Your task to perform on an android device: install app "Google Chat" Image 0: 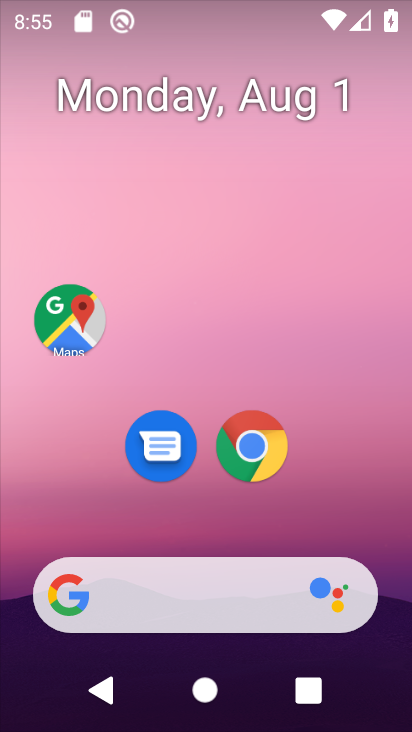
Step 0: drag from (212, 519) to (213, 88)
Your task to perform on an android device: install app "Google Chat" Image 1: 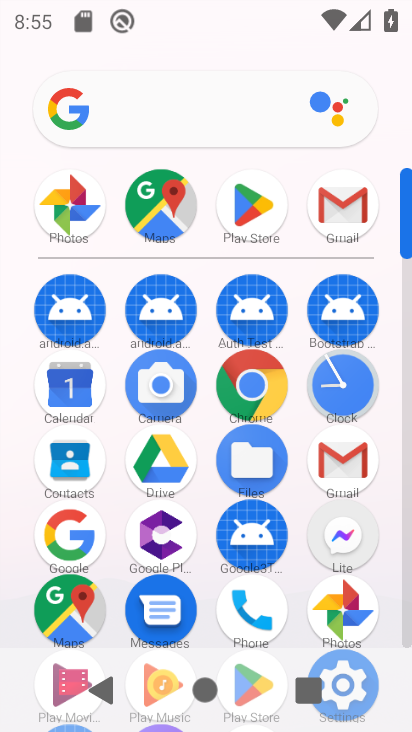
Step 1: click (252, 200)
Your task to perform on an android device: install app "Google Chat" Image 2: 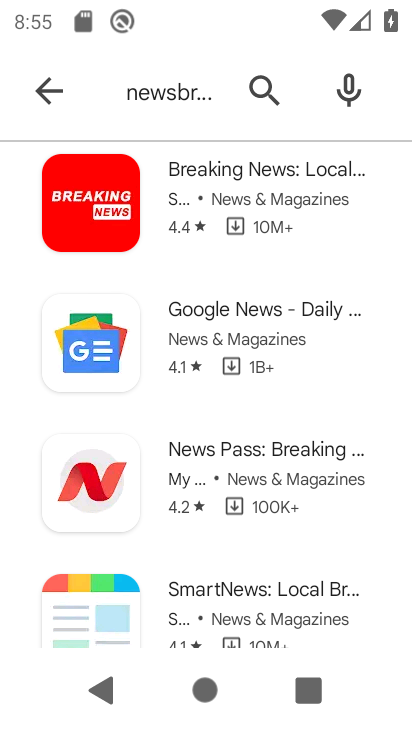
Step 2: click (267, 94)
Your task to perform on an android device: install app "Google Chat" Image 3: 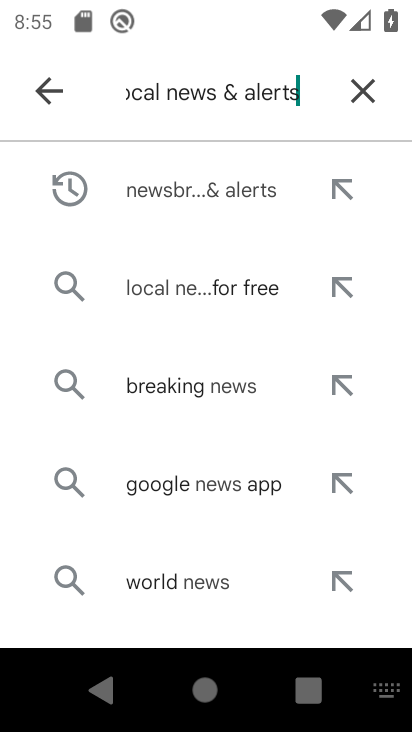
Step 3: click (354, 78)
Your task to perform on an android device: install app "Google Chat" Image 4: 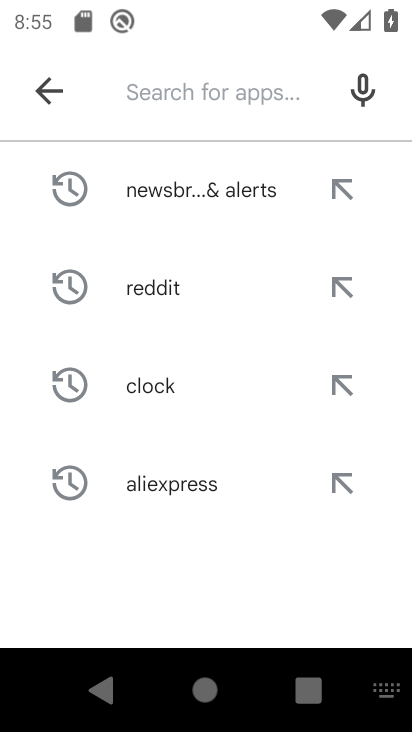
Step 4: type "Google Chat"
Your task to perform on an android device: install app "Google Chat" Image 5: 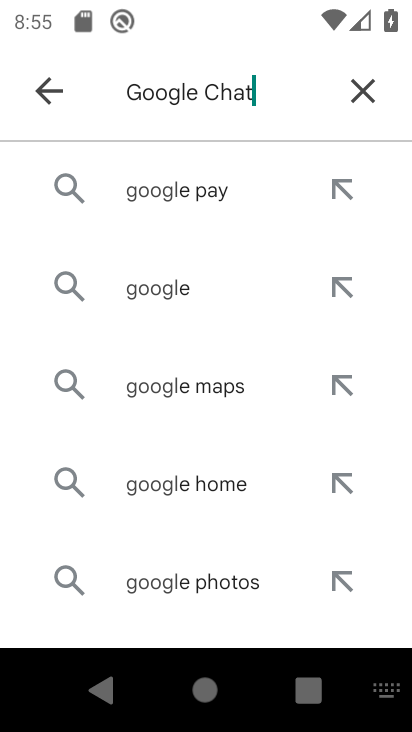
Step 5: type ""
Your task to perform on an android device: install app "Google Chat" Image 6: 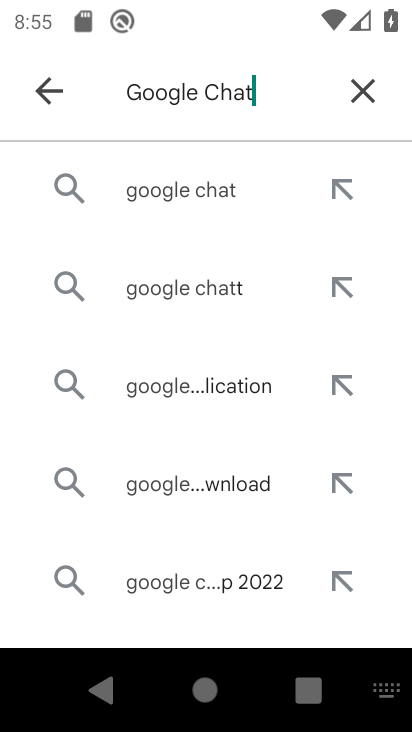
Step 6: click (162, 201)
Your task to perform on an android device: install app "Google Chat" Image 7: 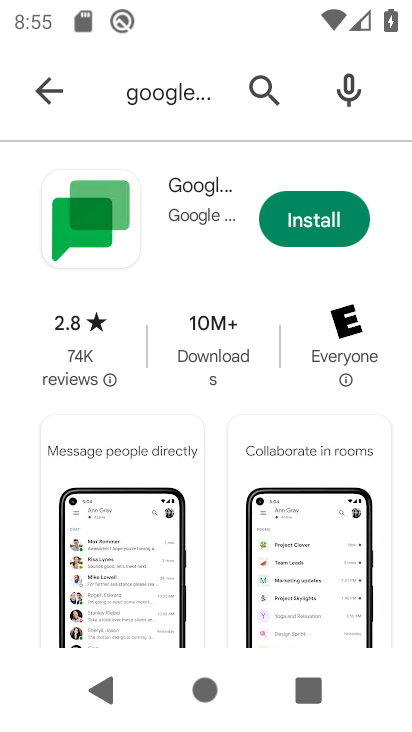
Step 7: click (294, 230)
Your task to perform on an android device: install app "Google Chat" Image 8: 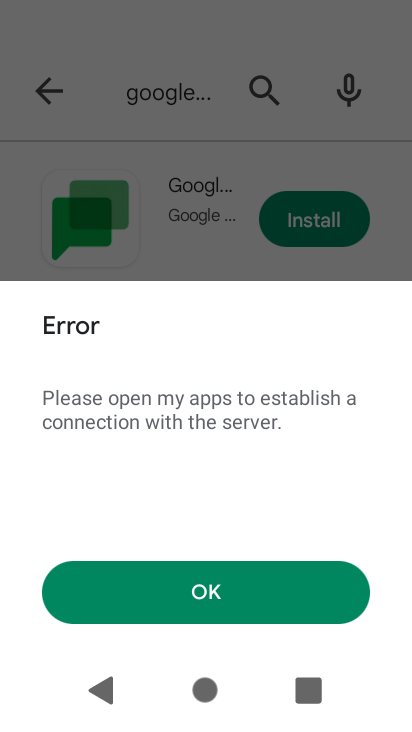
Step 8: click (301, 595)
Your task to perform on an android device: install app "Google Chat" Image 9: 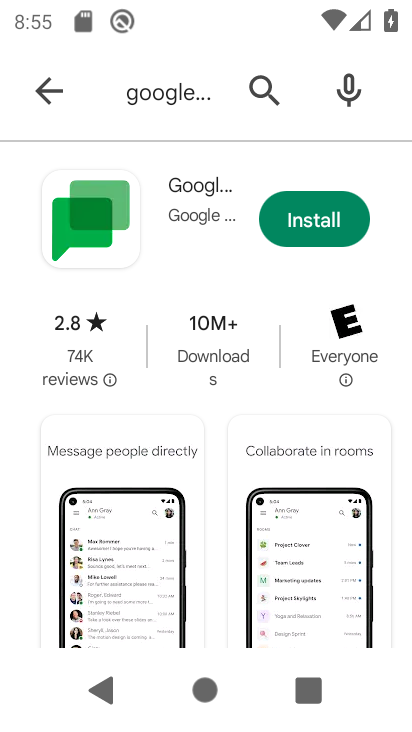
Step 9: task complete